Your task to perform on an android device: add a label to a message in the gmail app Image 0: 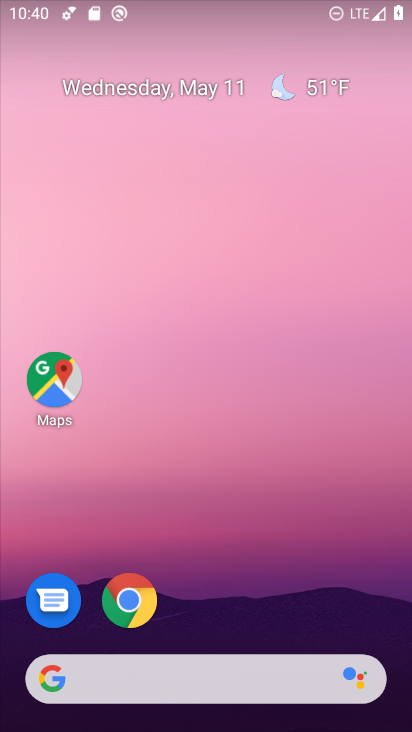
Step 0: drag from (269, 459) to (285, 160)
Your task to perform on an android device: add a label to a message in the gmail app Image 1: 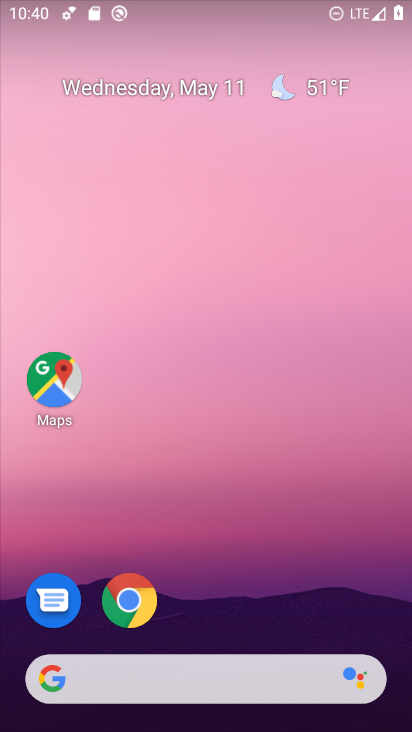
Step 1: drag from (292, 598) to (287, 38)
Your task to perform on an android device: add a label to a message in the gmail app Image 2: 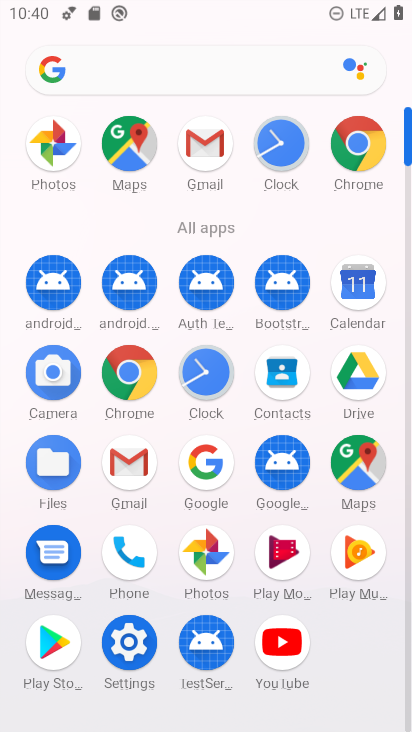
Step 2: click (133, 468)
Your task to perform on an android device: add a label to a message in the gmail app Image 3: 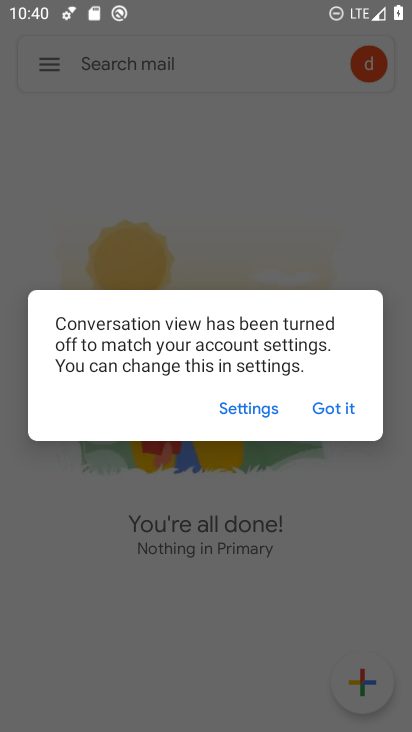
Step 3: click (347, 406)
Your task to perform on an android device: add a label to a message in the gmail app Image 4: 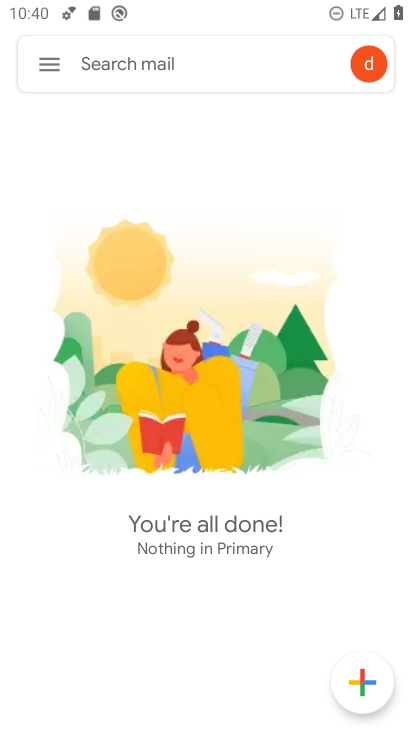
Step 4: task complete